Your task to perform on an android device: manage bookmarks in the chrome app Image 0: 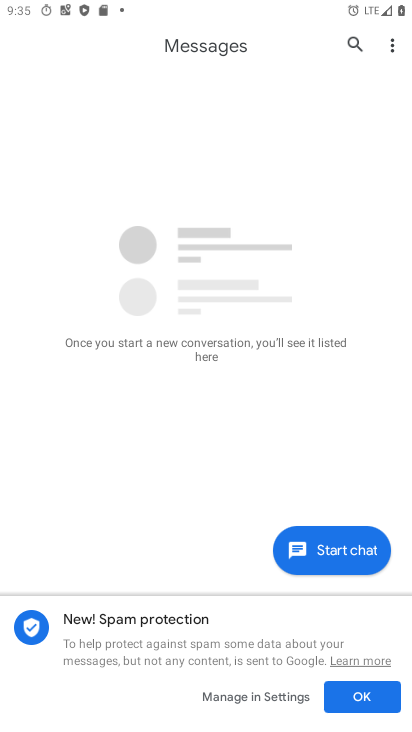
Step 0: press home button
Your task to perform on an android device: manage bookmarks in the chrome app Image 1: 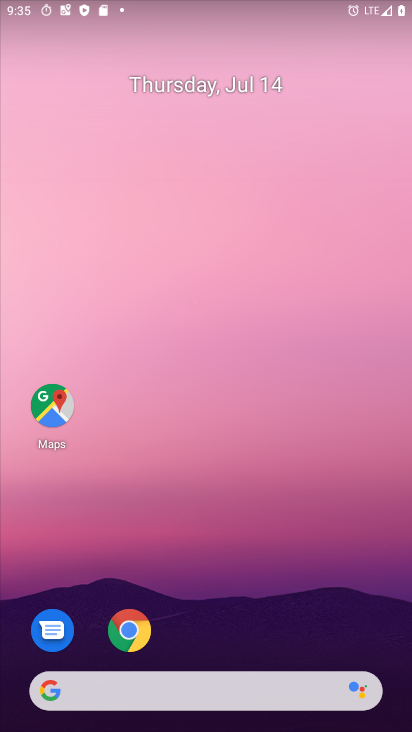
Step 1: click (128, 628)
Your task to perform on an android device: manage bookmarks in the chrome app Image 2: 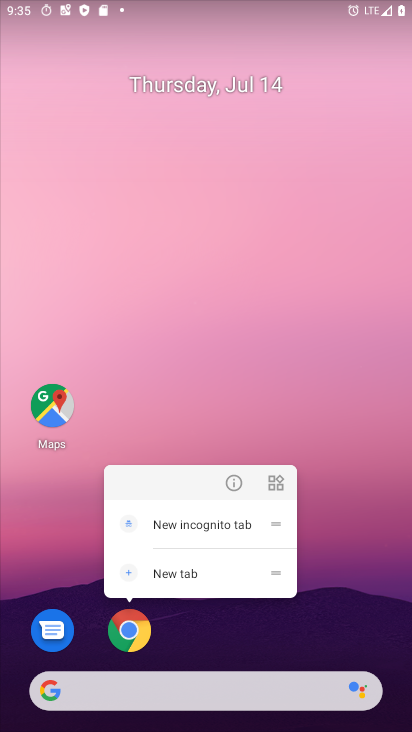
Step 2: click (131, 639)
Your task to perform on an android device: manage bookmarks in the chrome app Image 3: 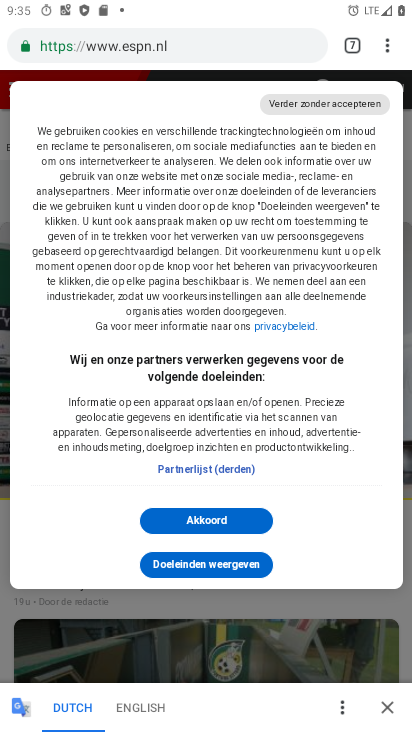
Step 3: click (387, 47)
Your task to perform on an android device: manage bookmarks in the chrome app Image 4: 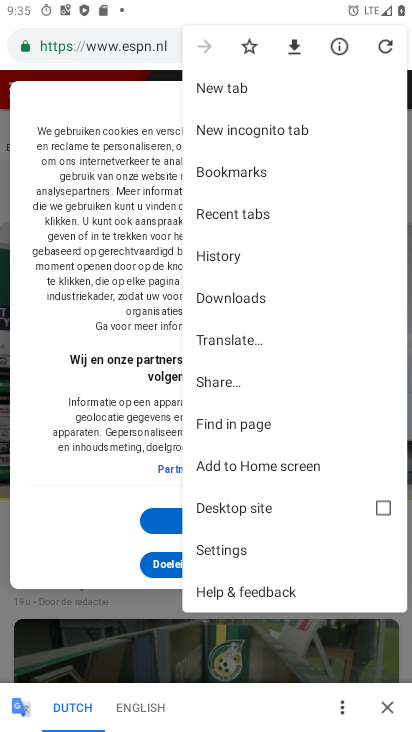
Step 4: click (240, 170)
Your task to perform on an android device: manage bookmarks in the chrome app Image 5: 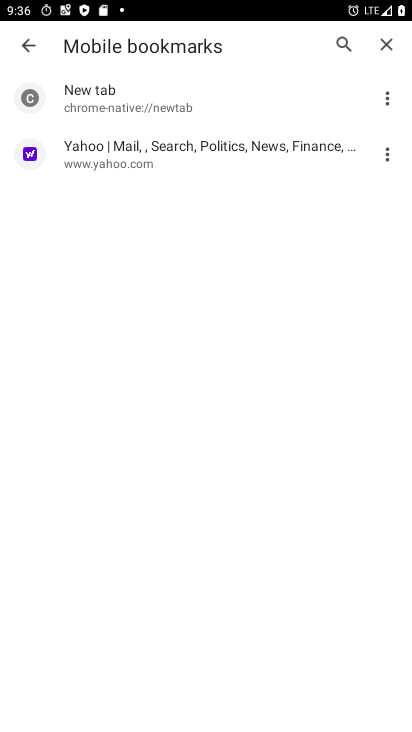
Step 5: click (390, 152)
Your task to perform on an android device: manage bookmarks in the chrome app Image 6: 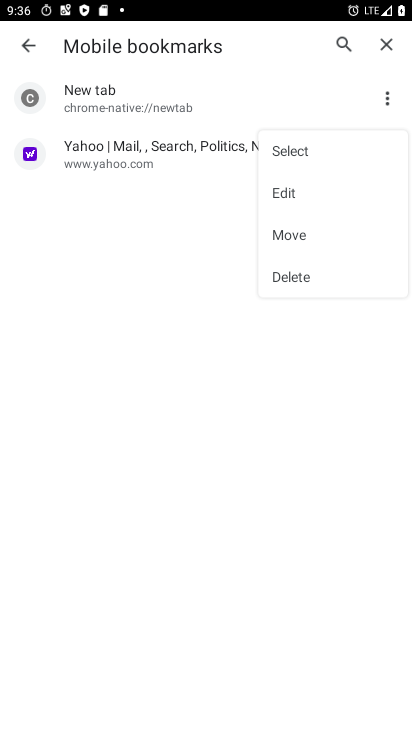
Step 6: click (290, 188)
Your task to perform on an android device: manage bookmarks in the chrome app Image 7: 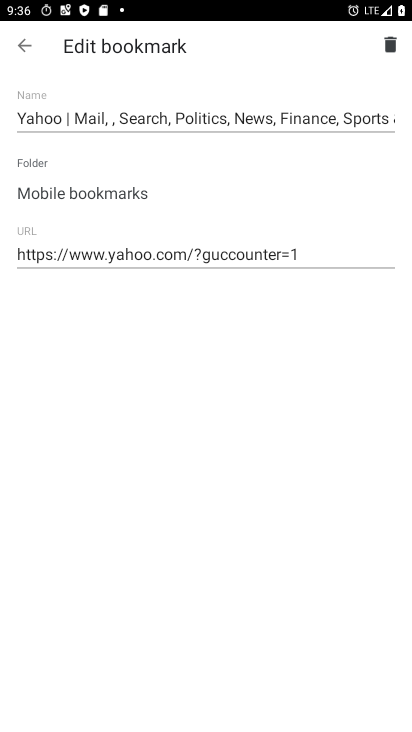
Step 7: click (171, 118)
Your task to perform on an android device: manage bookmarks in the chrome app Image 8: 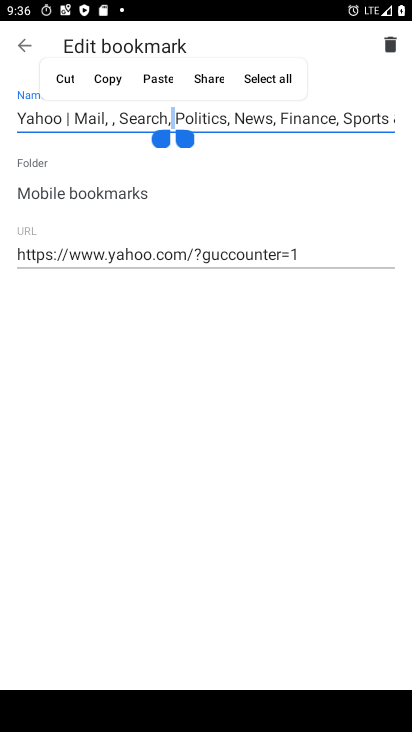
Step 8: drag from (184, 134) to (390, 129)
Your task to perform on an android device: manage bookmarks in the chrome app Image 9: 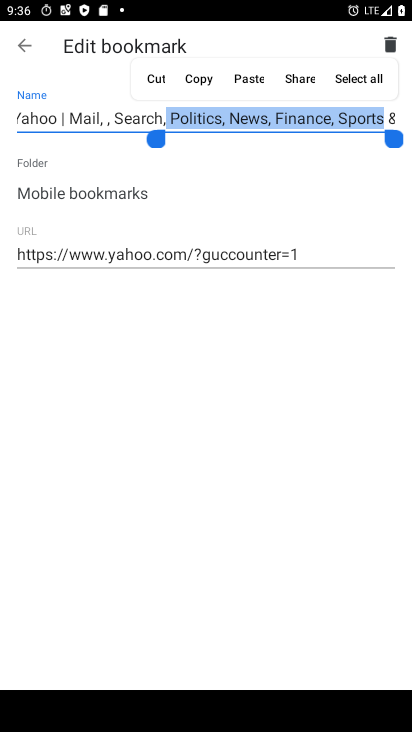
Step 9: click (164, 77)
Your task to perform on an android device: manage bookmarks in the chrome app Image 10: 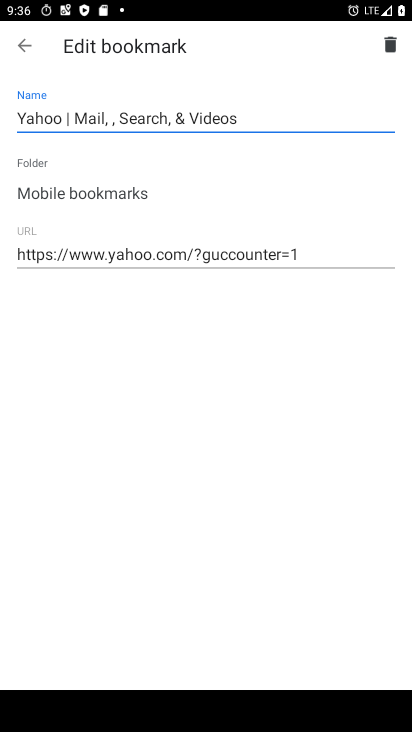
Step 10: click (21, 43)
Your task to perform on an android device: manage bookmarks in the chrome app Image 11: 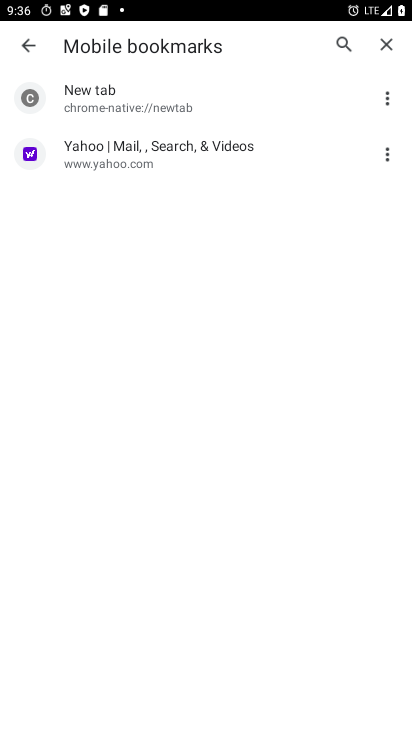
Step 11: task complete